Your task to perform on an android device: Open the calendar and show me this week's events? Image 0: 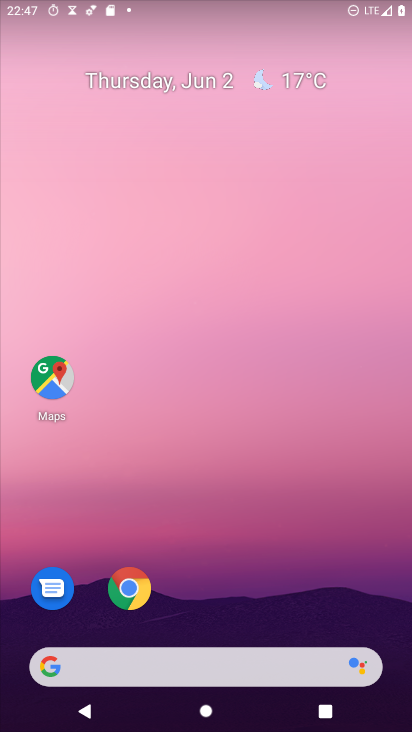
Step 0: drag from (226, 618) to (275, 94)
Your task to perform on an android device: Open the calendar and show me this week's events? Image 1: 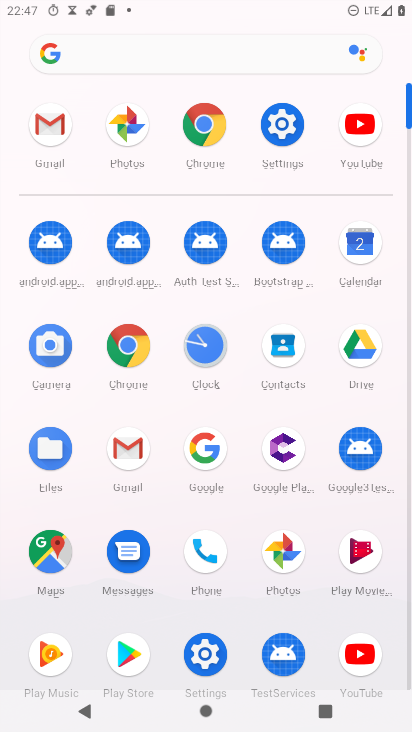
Step 1: click (355, 252)
Your task to perform on an android device: Open the calendar and show me this week's events? Image 2: 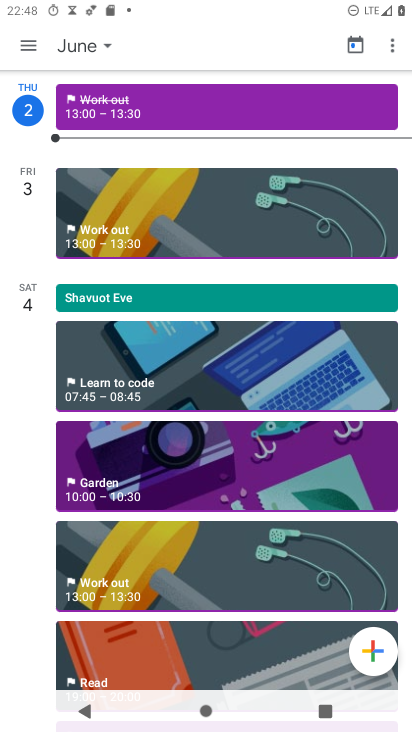
Step 2: click (98, 297)
Your task to perform on an android device: Open the calendar and show me this week's events? Image 3: 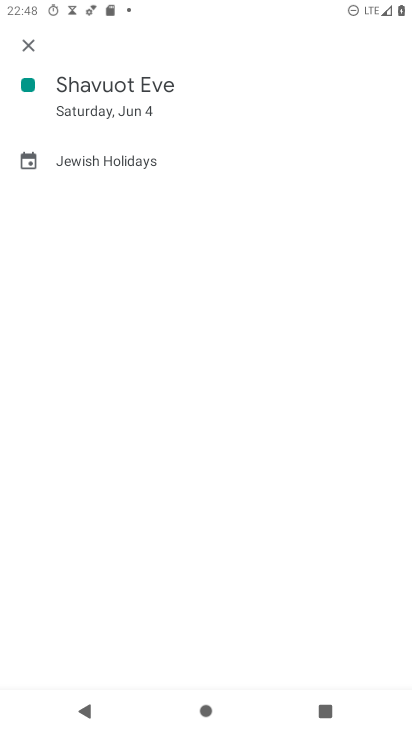
Step 3: task complete